Your task to perform on an android device: Search for sushi restaurants on Maps Image 0: 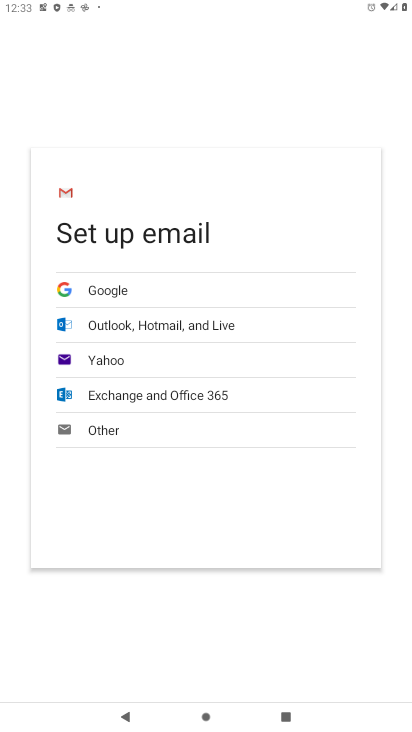
Step 0: press home button
Your task to perform on an android device: Search for sushi restaurants on Maps Image 1: 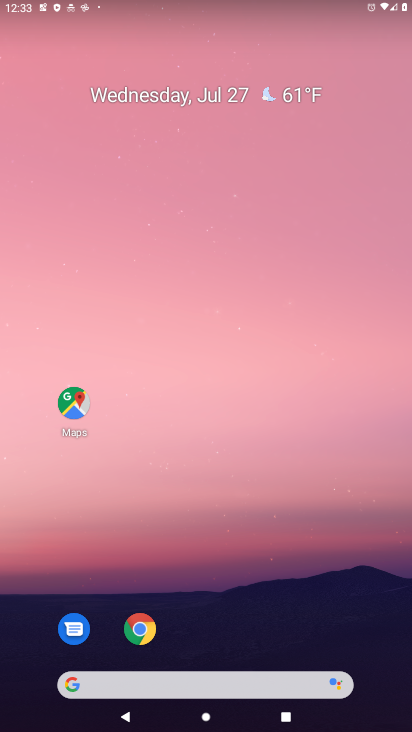
Step 1: click (61, 407)
Your task to perform on an android device: Search for sushi restaurants on Maps Image 2: 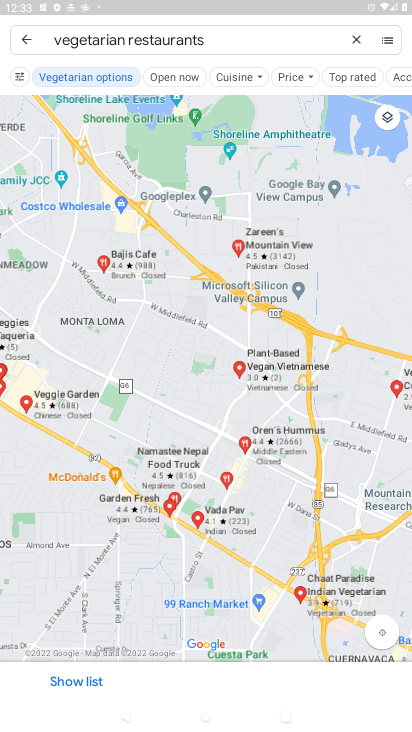
Step 2: click (346, 40)
Your task to perform on an android device: Search for sushi restaurants on Maps Image 3: 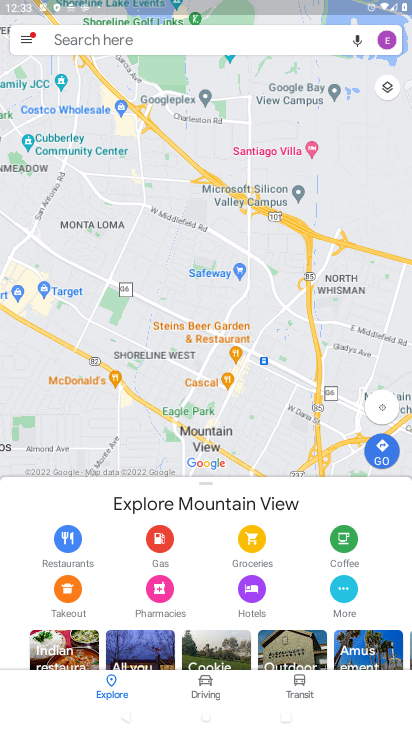
Step 3: click (262, 39)
Your task to perform on an android device: Search for sushi restaurants on Maps Image 4: 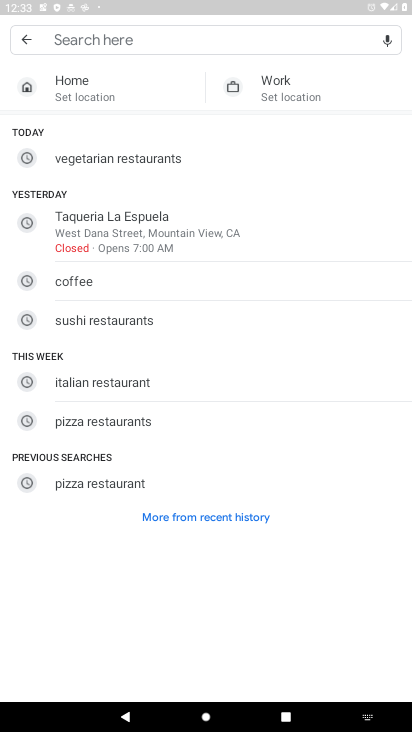
Step 4: click (127, 315)
Your task to perform on an android device: Search for sushi restaurants on Maps Image 5: 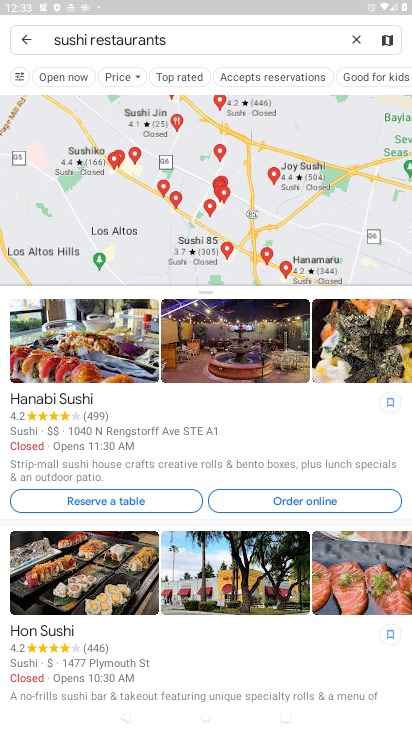
Step 5: task complete